Your task to perform on an android device: change notification settings in the gmail app Image 0: 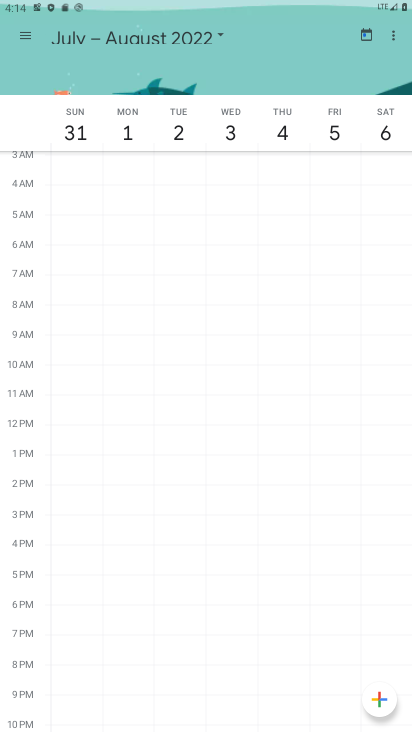
Step 0: press home button
Your task to perform on an android device: change notification settings in the gmail app Image 1: 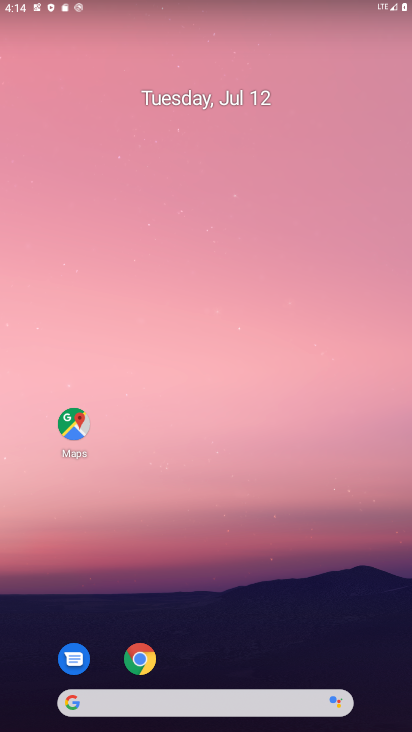
Step 1: drag from (190, 711) to (203, 145)
Your task to perform on an android device: change notification settings in the gmail app Image 2: 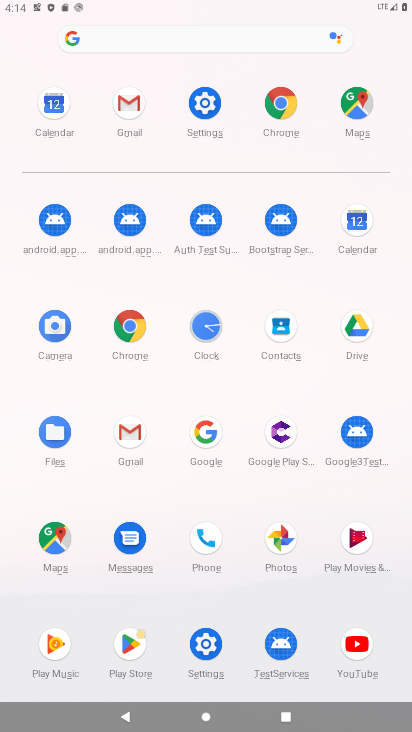
Step 2: click (131, 440)
Your task to perform on an android device: change notification settings in the gmail app Image 3: 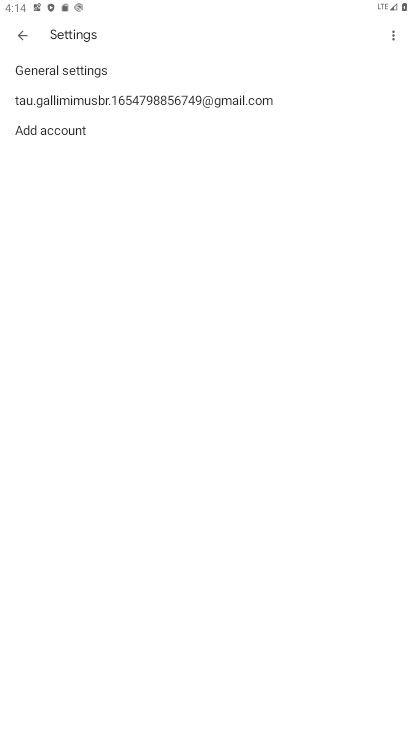
Step 3: click (19, 33)
Your task to perform on an android device: change notification settings in the gmail app Image 4: 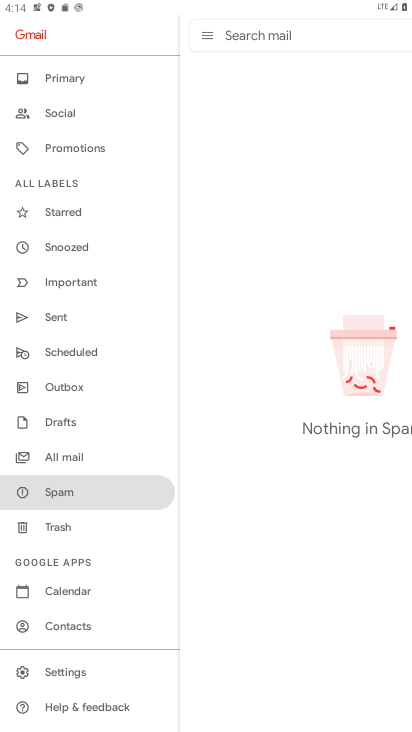
Step 4: click (64, 667)
Your task to perform on an android device: change notification settings in the gmail app Image 5: 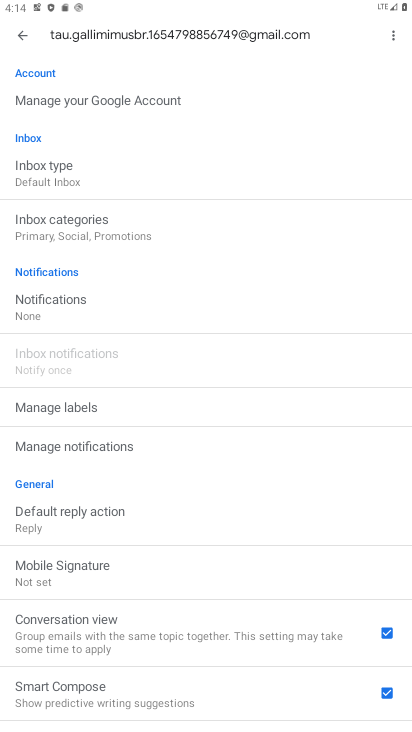
Step 5: click (38, 297)
Your task to perform on an android device: change notification settings in the gmail app Image 6: 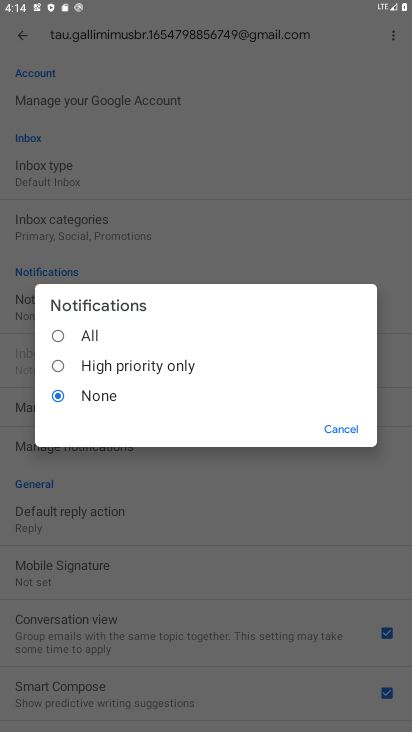
Step 6: click (54, 332)
Your task to perform on an android device: change notification settings in the gmail app Image 7: 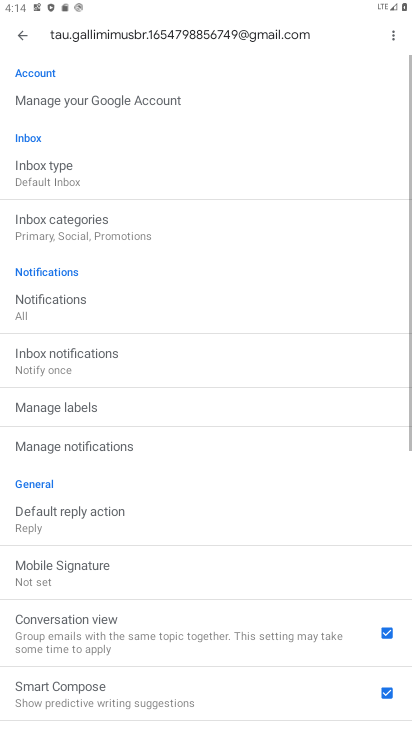
Step 7: task complete